Your task to perform on an android device: open device folders in google photos Image 0: 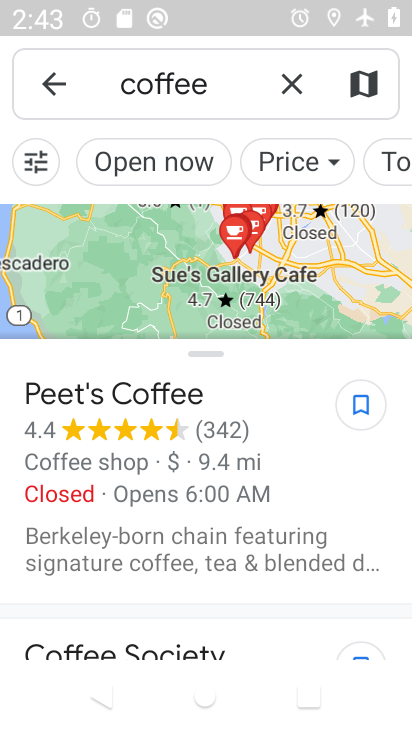
Step 0: press home button
Your task to perform on an android device: open device folders in google photos Image 1: 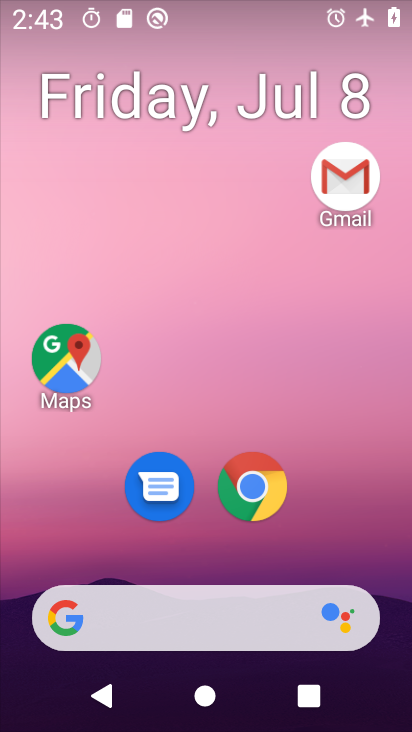
Step 1: drag from (348, 310) to (348, 161)
Your task to perform on an android device: open device folders in google photos Image 2: 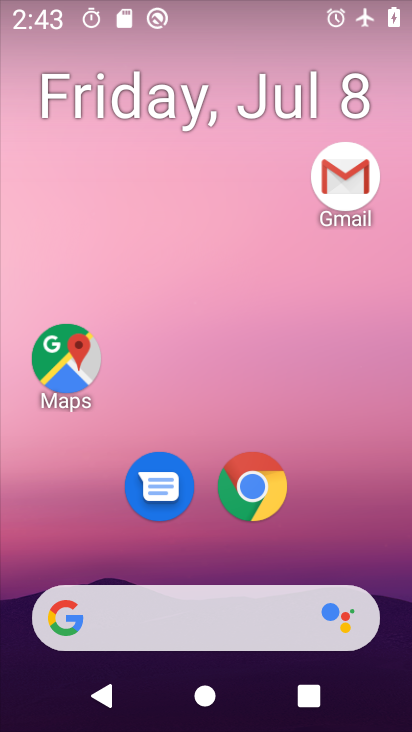
Step 2: drag from (368, 511) to (370, 201)
Your task to perform on an android device: open device folders in google photos Image 3: 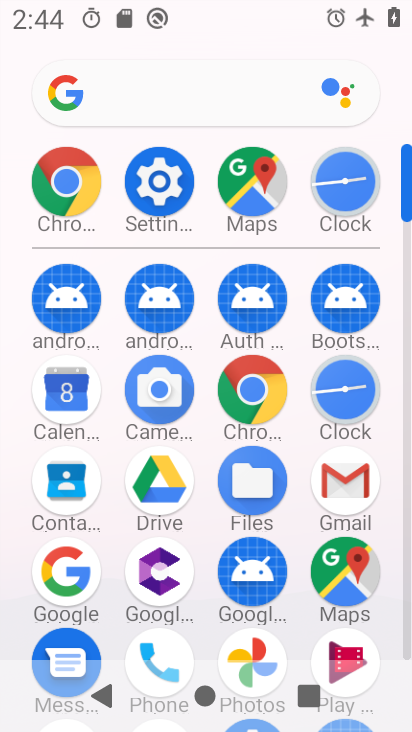
Step 3: drag from (385, 531) to (391, 325)
Your task to perform on an android device: open device folders in google photos Image 4: 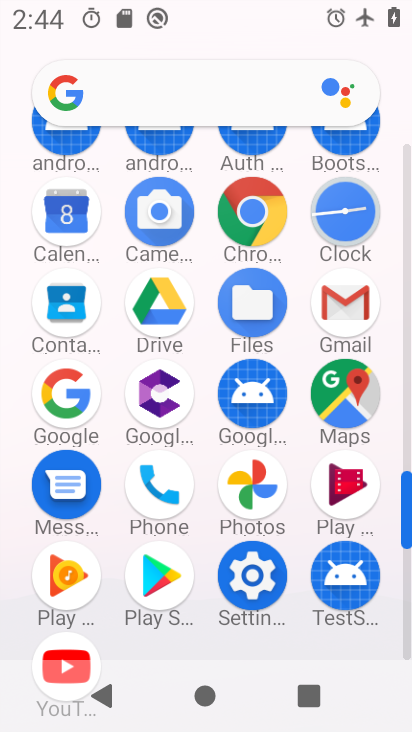
Step 4: click (264, 498)
Your task to perform on an android device: open device folders in google photos Image 5: 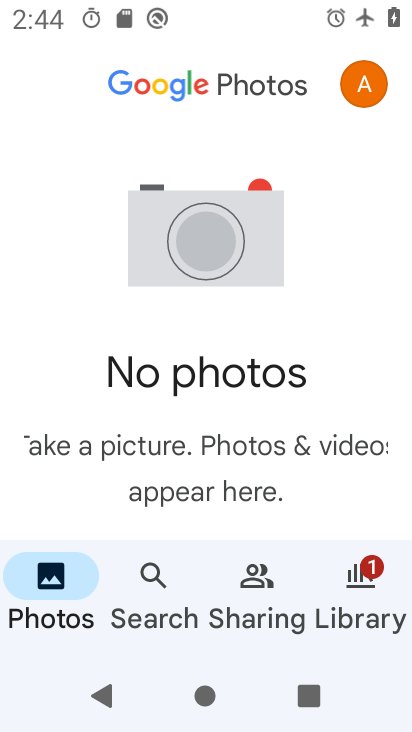
Step 5: click (365, 79)
Your task to perform on an android device: open device folders in google photos Image 6: 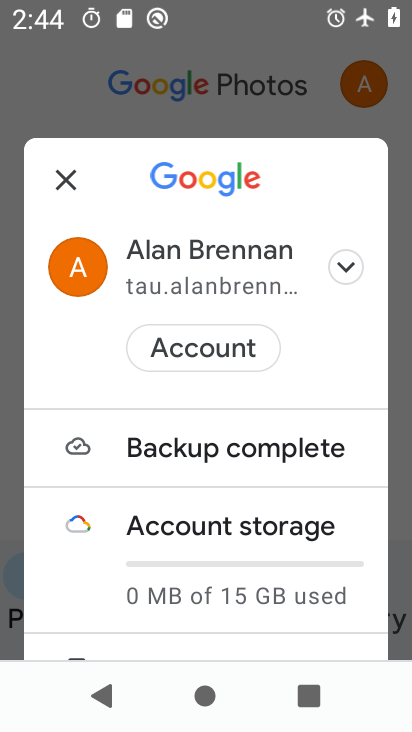
Step 6: task complete